Your task to perform on an android device: What is the recent news? Image 0: 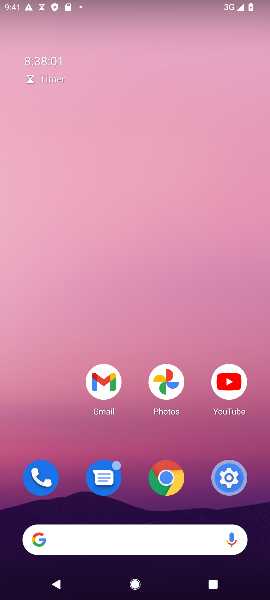
Step 0: drag from (197, 345) to (195, 26)
Your task to perform on an android device: What is the recent news? Image 1: 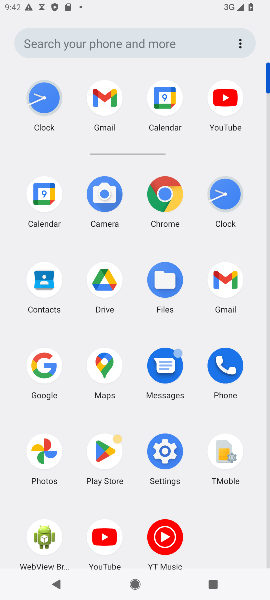
Step 1: click (160, 196)
Your task to perform on an android device: What is the recent news? Image 2: 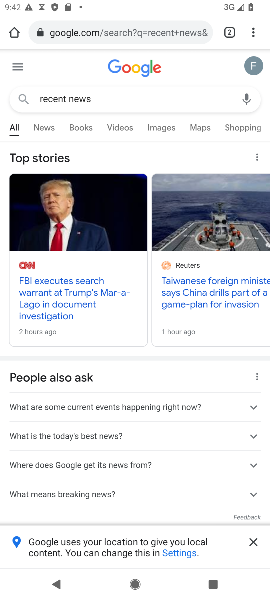
Step 2: task complete